Your task to perform on an android device: add a contact in the contacts app Image 0: 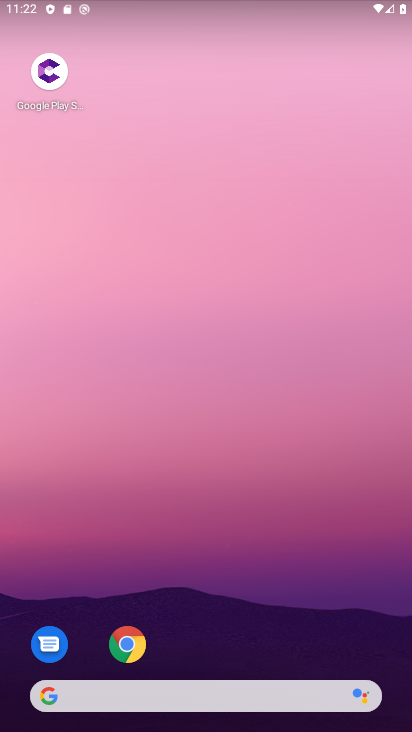
Step 0: task complete